Your task to perform on an android device: When is my next meeting? Image 0: 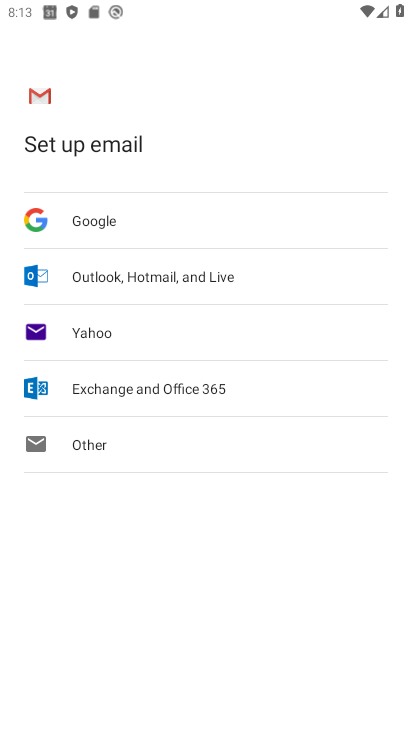
Step 0: press home button
Your task to perform on an android device: When is my next meeting? Image 1: 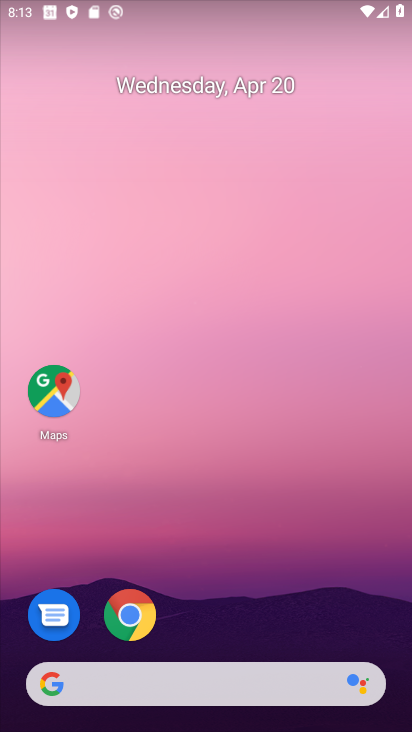
Step 1: drag from (197, 665) to (264, 56)
Your task to perform on an android device: When is my next meeting? Image 2: 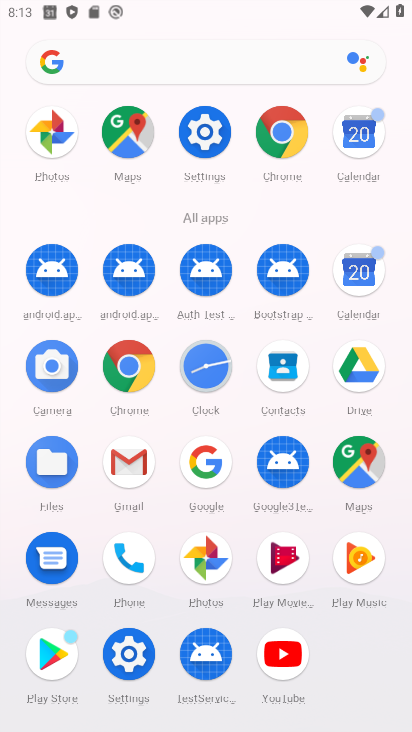
Step 2: click (348, 278)
Your task to perform on an android device: When is my next meeting? Image 3: 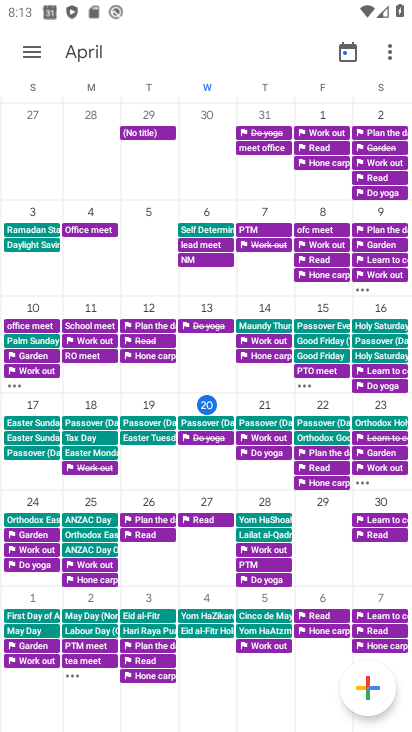
Step 3: click (267, 374)
Your task to perform on an android device: When is my next meeting? Image 4: 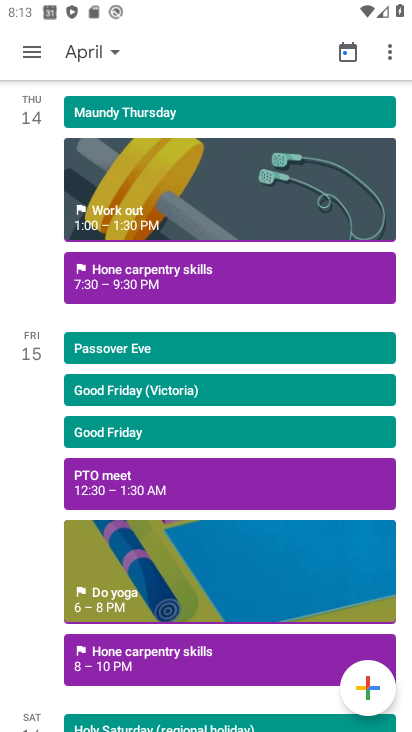
Step 4: task complete